Your task to perform on an android device: set an alarm Image 0: 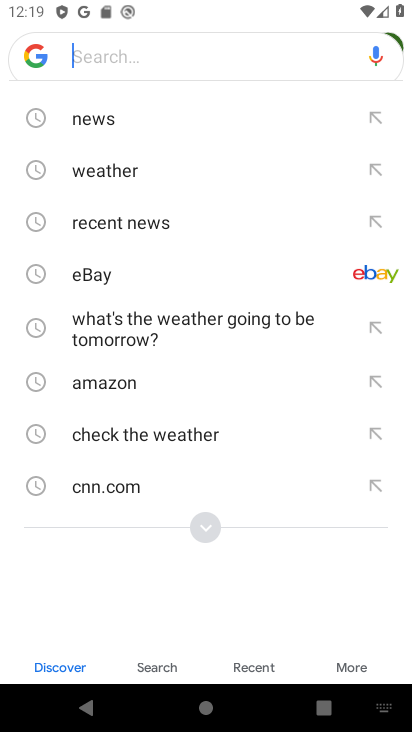
Step 0: press home button
Your task to perform on an android device: set an alarm Image 1: 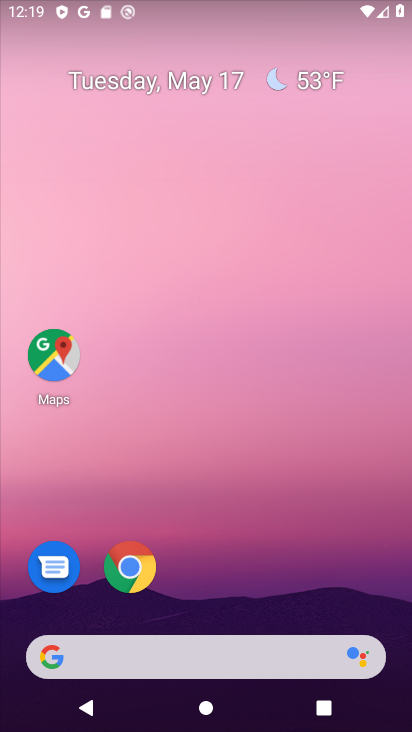
Step 1: drag from (338, 578) to (346, 122)
Your task to perform on an android device: set an alarm Image 2: 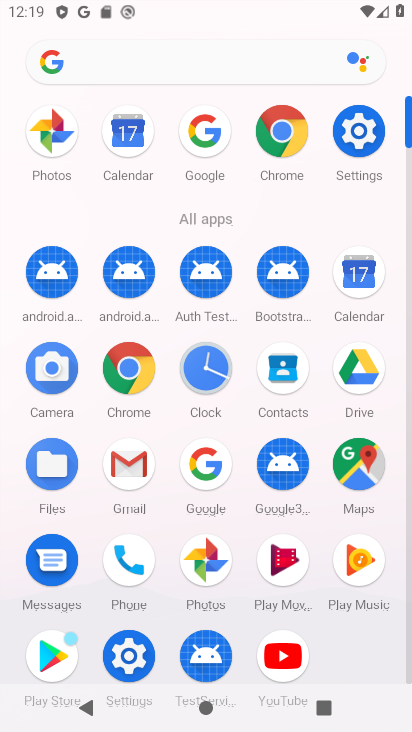
Step 2: click (211, 377)
Your task to perform on an android device: set an alarm Image 3: 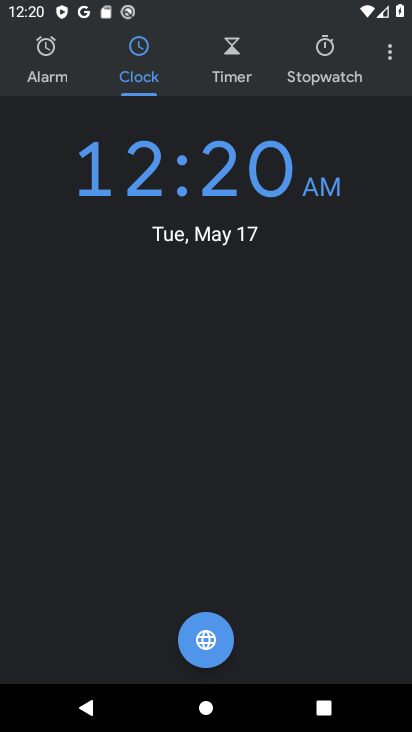
Step 3: click (37, 62)
Your task to perform on an android device: set an alarm Image 4: 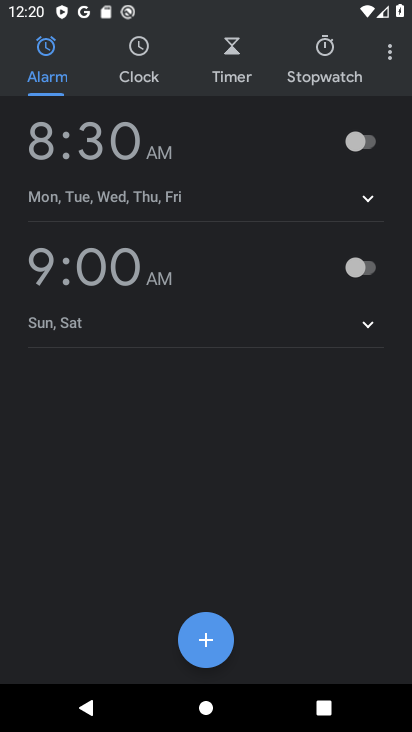
Step 4: click (213, 650)
Your task to perform on an android device: set an alarm Image 5: 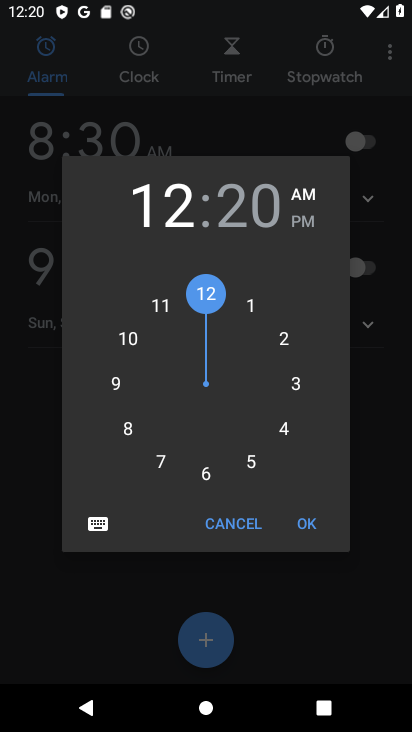
Step 5: click (292, 340)
Your task to perform on an android device: set an alarm Image 6: 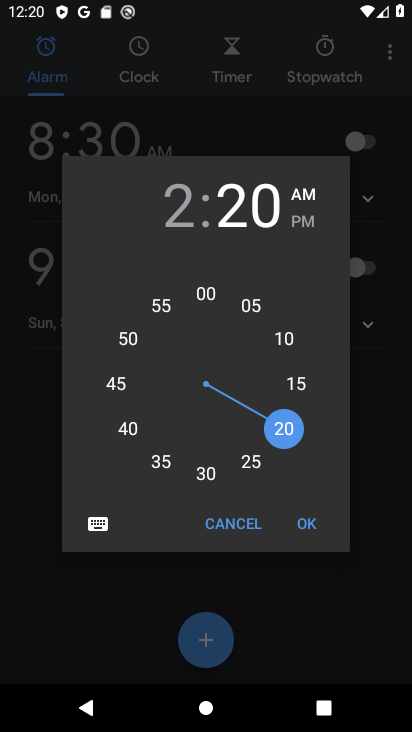
Step 6: click (319, 528)
Your task to perform on an android device: set an alarm Image 7: 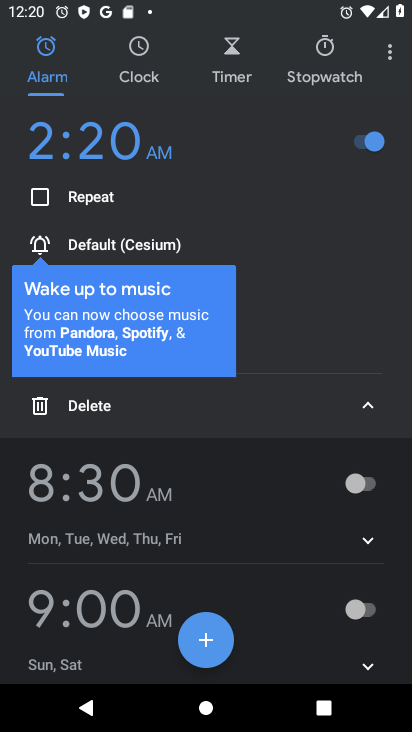
Step 7: task complete